Your task to perform on an android device: Add "usb-a to usb-b" to the cart on bestbuy Image 0: 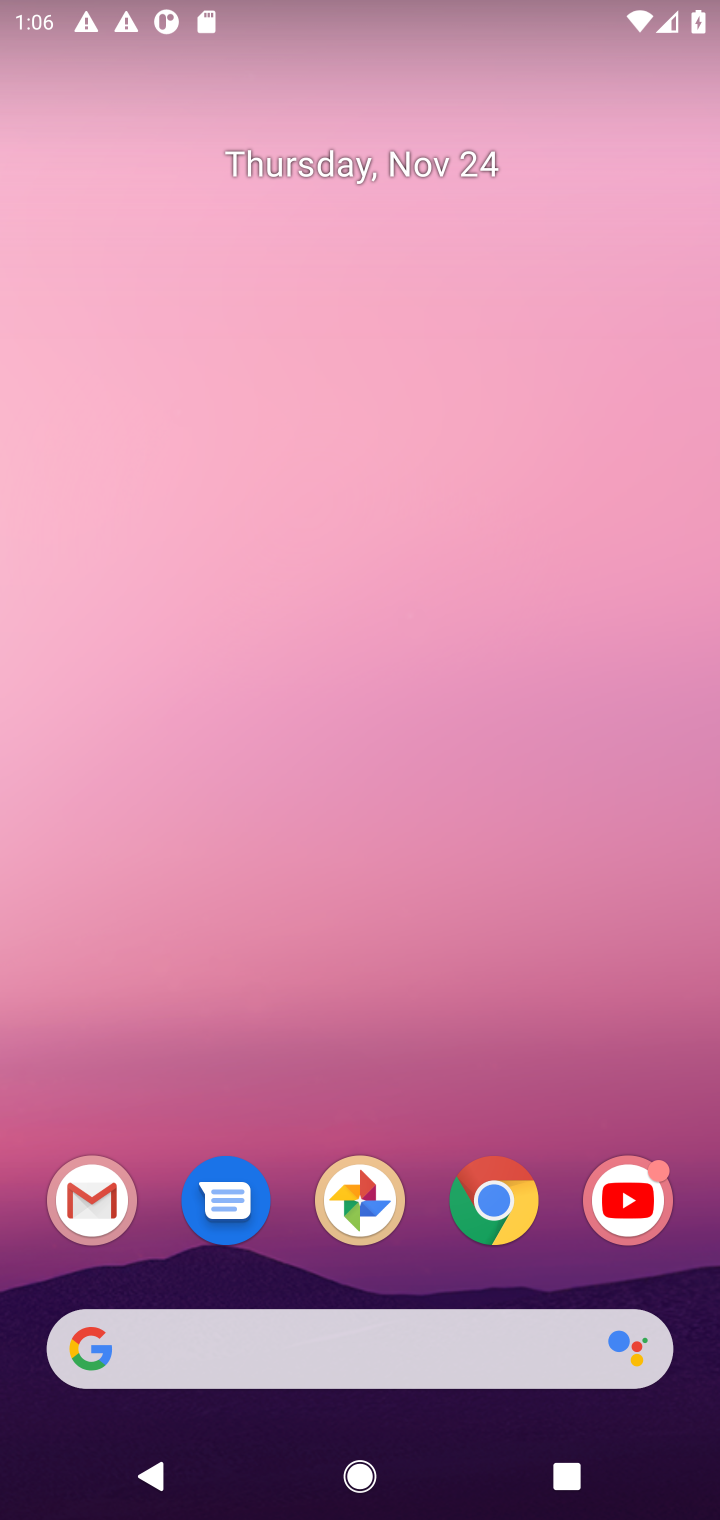
Step 0: click (403, 1326)
Your task to perform on an android device: Add "usb-a to usb-b" to the cart on bestbuy Image 1: 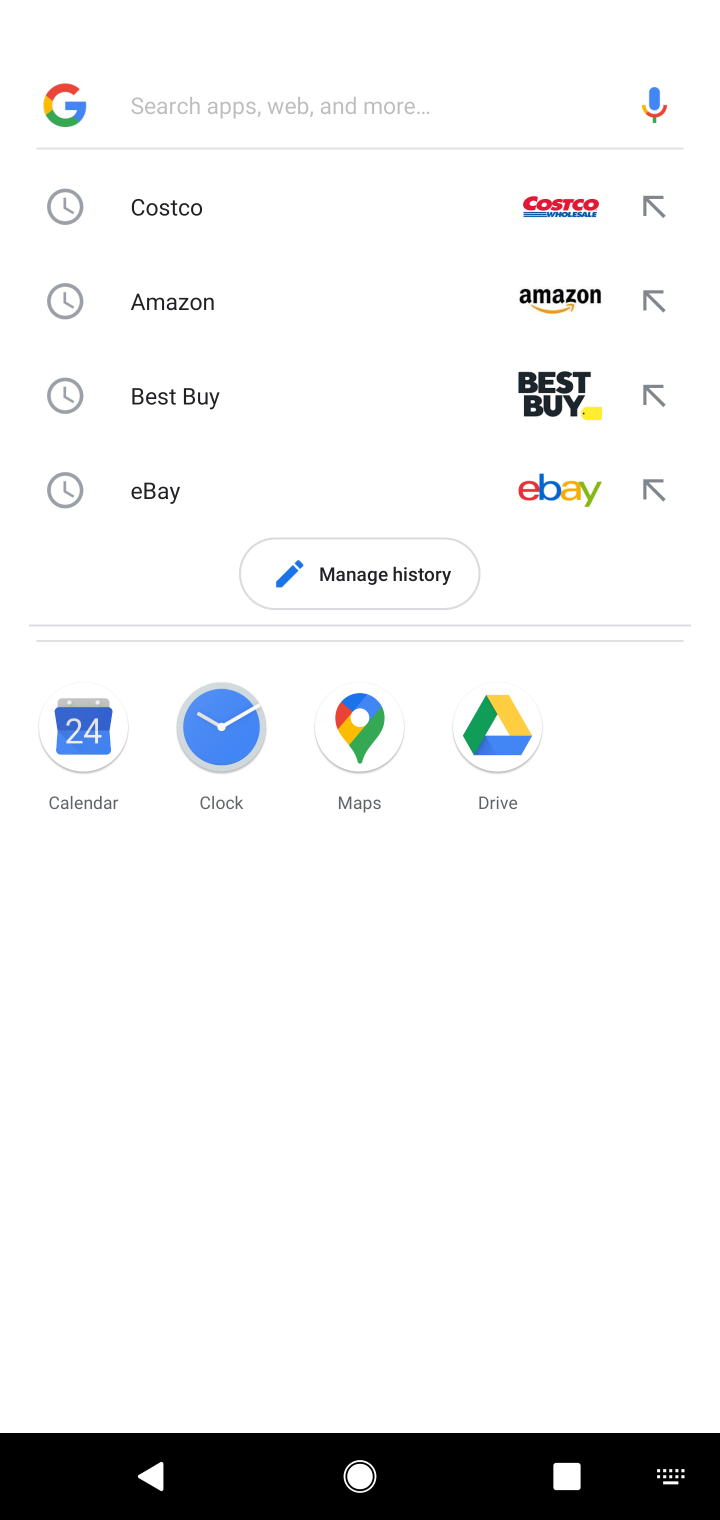
Step 1: type "best"
Your task to perform on an android device: Add "usb-a to usb-b" to the cart on bestbuy Image 2: 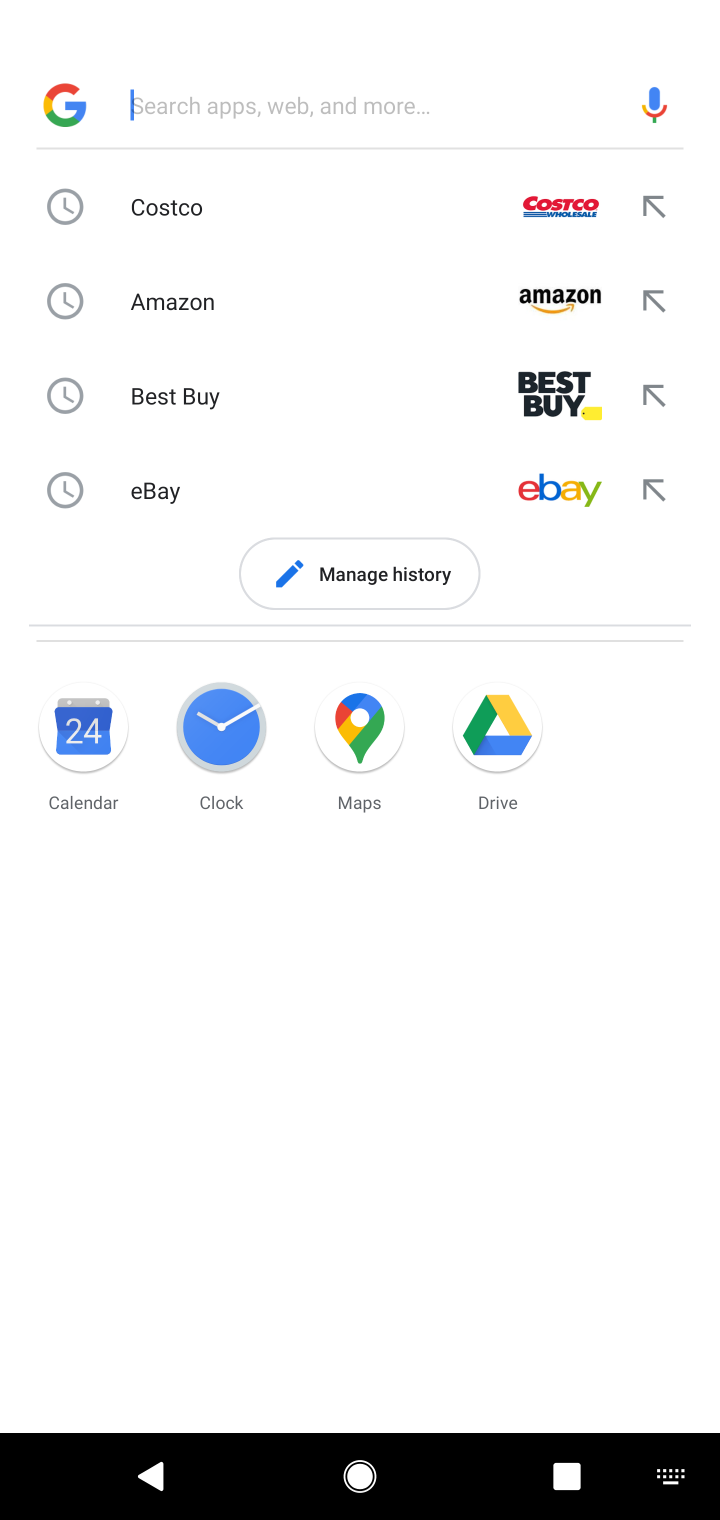
Step 2: click (441, 401)
Your task to perform on an android device: Add "usb-a to usb-b" to the cart on bestbuy Image 3: 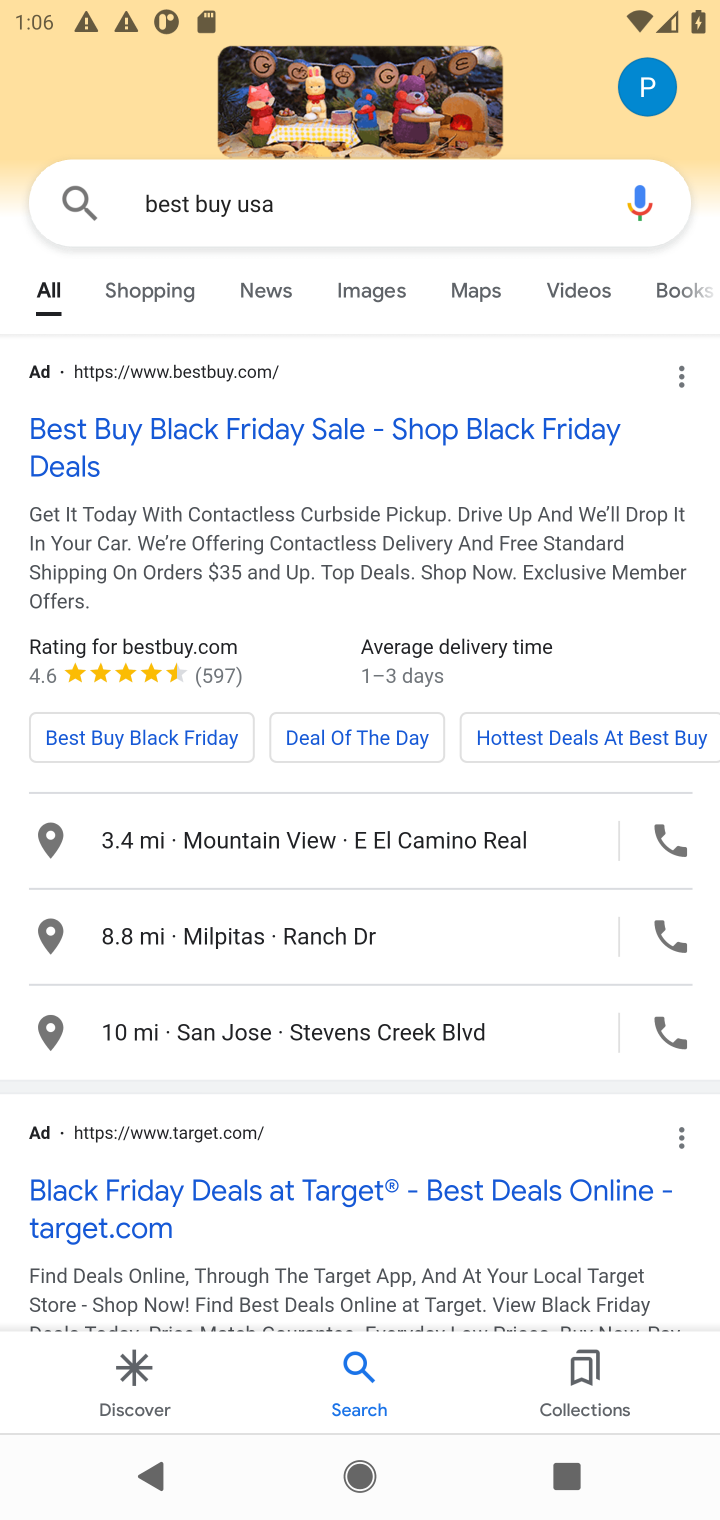
Step 3: click (94, 405)
Your task to perform on an android device: Add "usb-a to usb-b" to the cart on bestbuy Image 4: 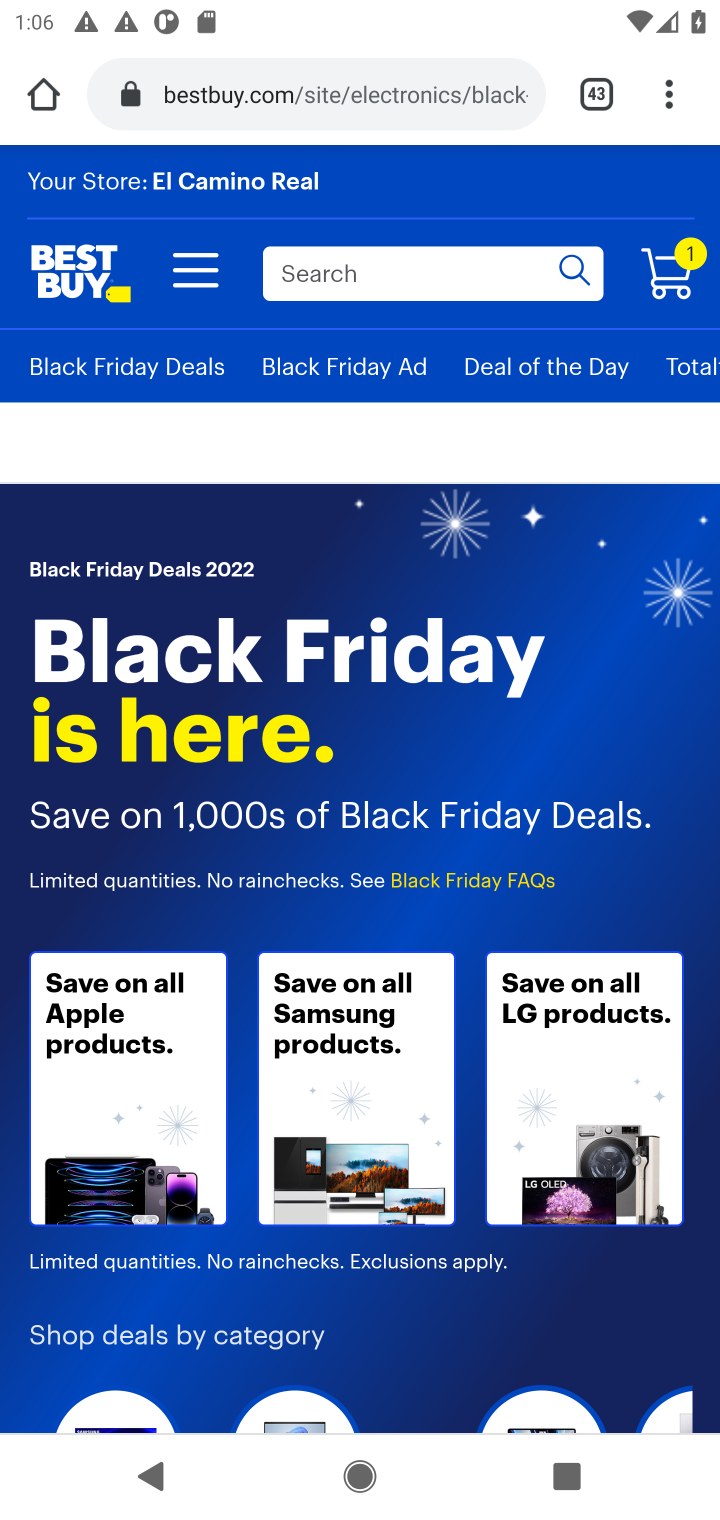
Step 4: click (392, 274)
Your task to perform on an android device: Add "usb-a to usb-b" to the cart on bestbuy Image 5: 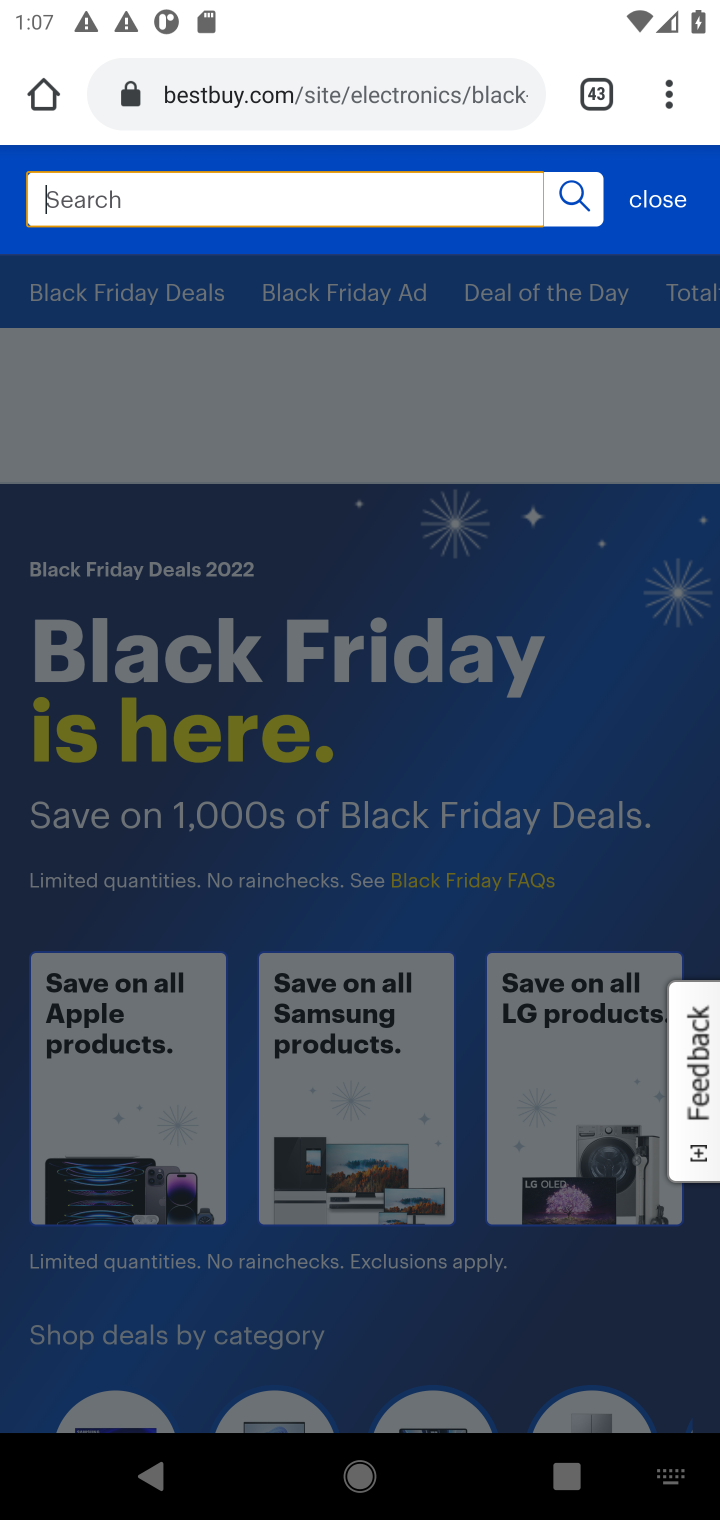
Step 5: type "usb-a to usb-b"
Your task to perform on an android device: Add "usb-a to usb-b" to the cart on bestbuy Image 6: 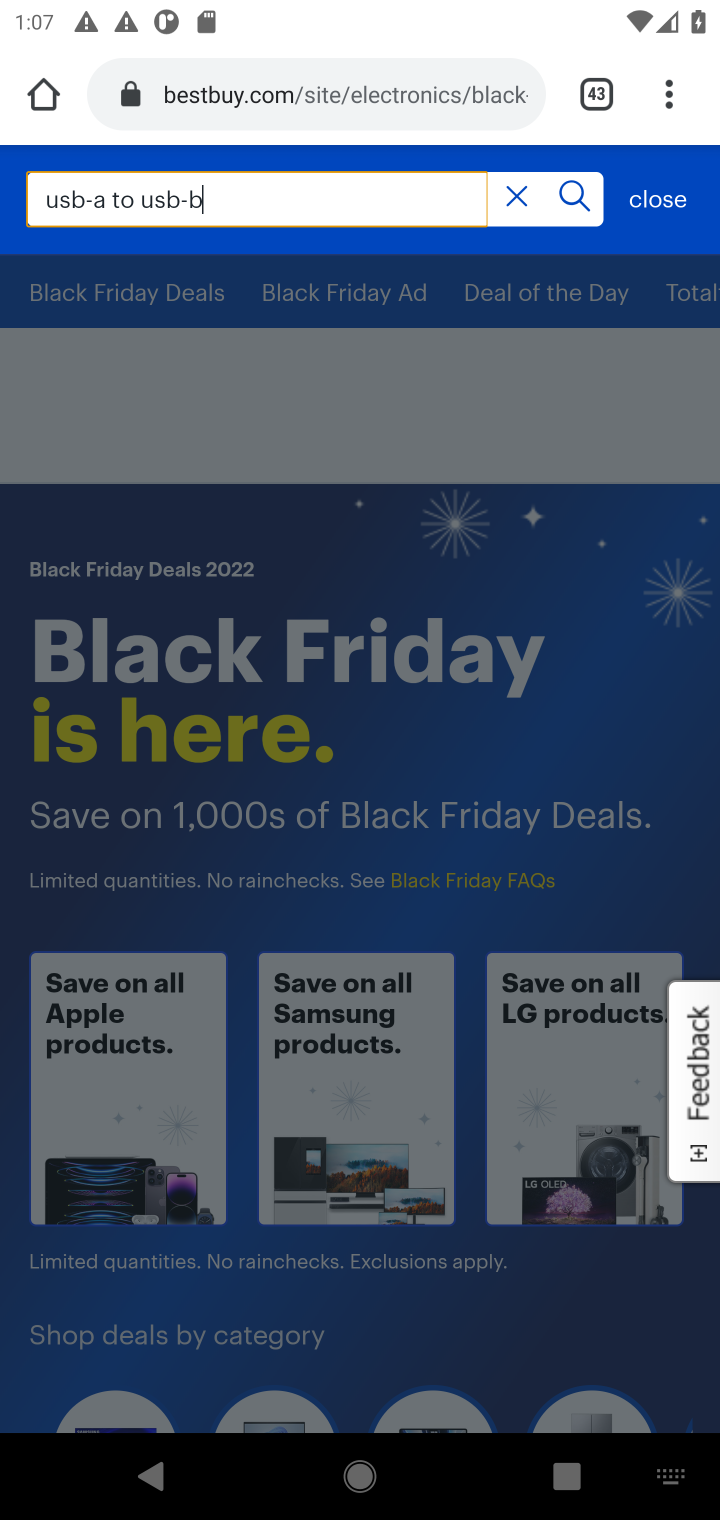
Step 6: click (571, 201)
Your task to perform on an android device: Add "usb-a to usb-b" to the cart on bestbuy Image 7: 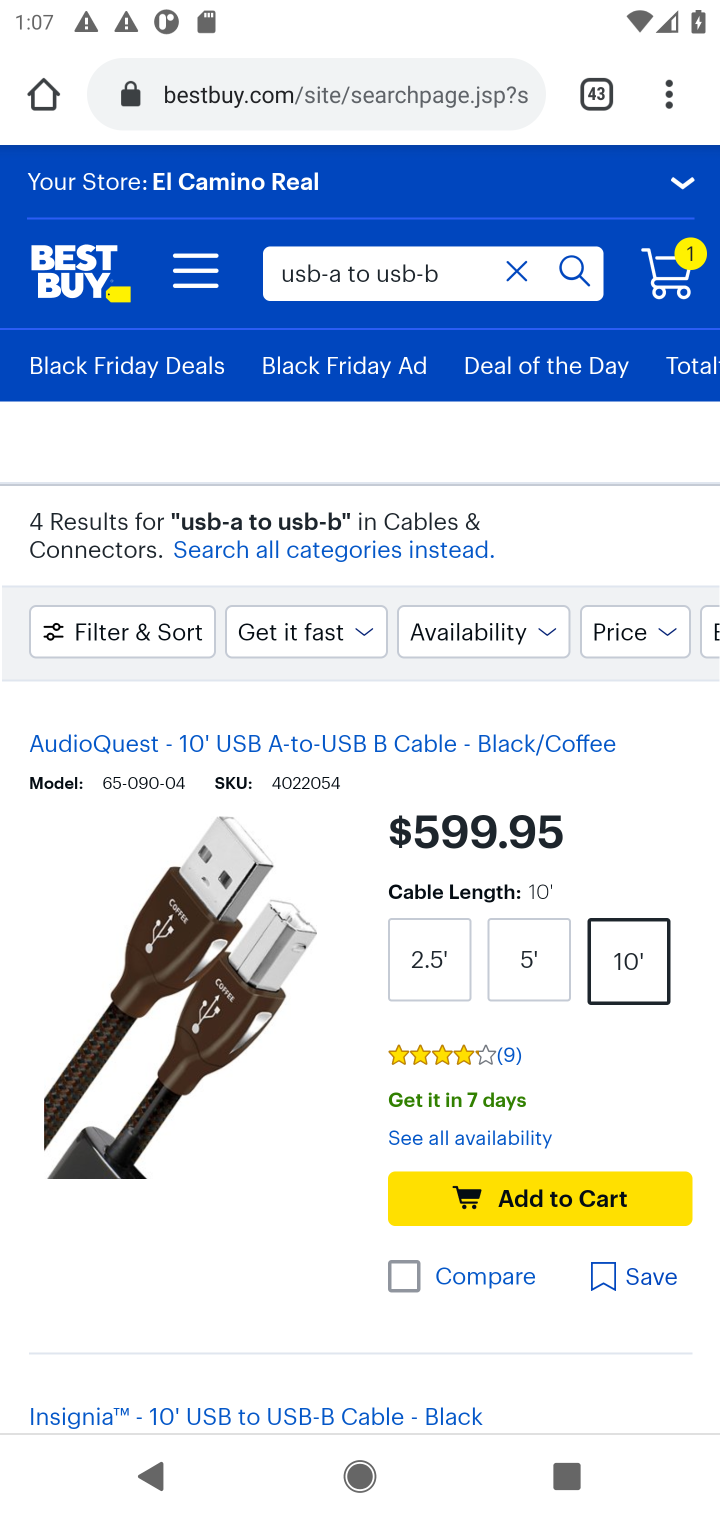
Step 7: click (466, 1186)
Your task to perform on an android device: Add "usb-a to usb-b" to the cart on bestbuy Image 8: 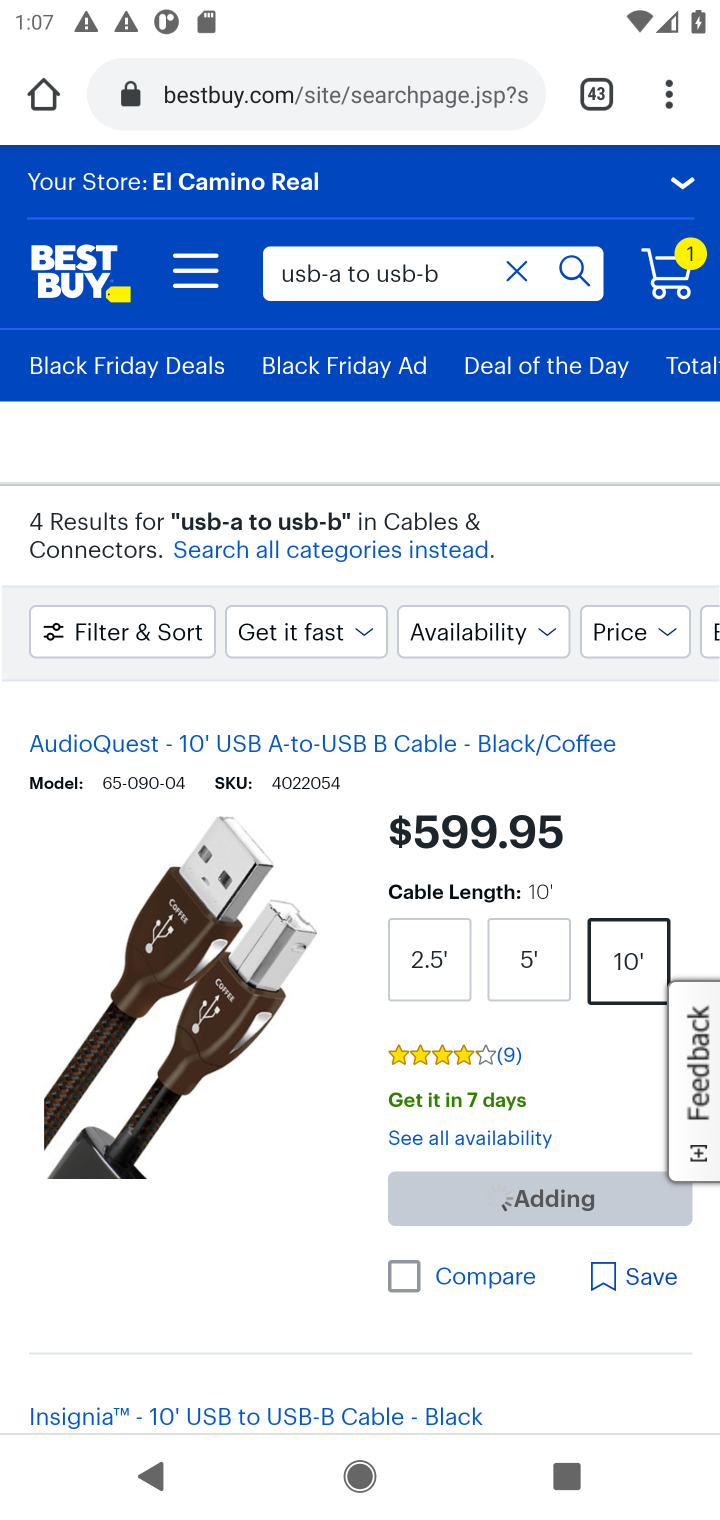
Step 8: task complete